Your task to perform on an android device: open app "YouTube Kids" (install if not already installed) Image 0: 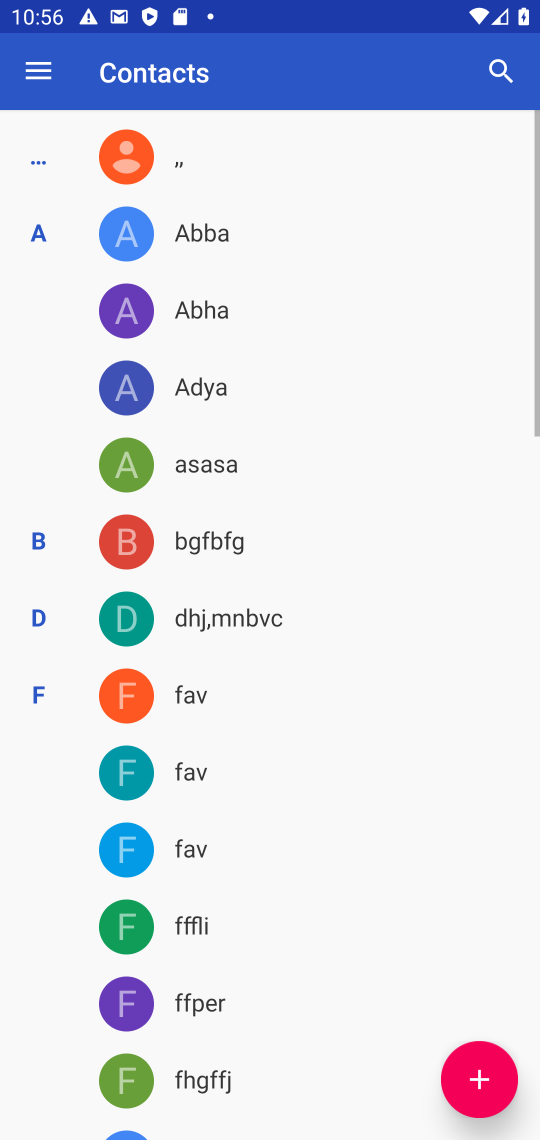
Step 0: press home button
Your task to perform on an android device: open app "YouTube Kids" (install if not already installed) Image 1: 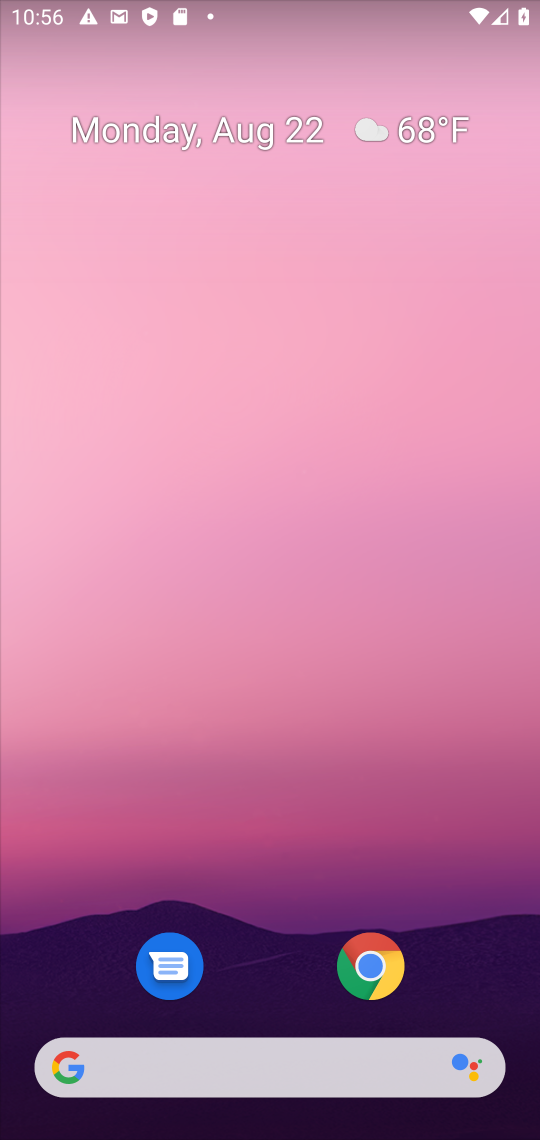
Step 1: drag from (463, 935) to (446, 79)
Your task to perform on an android device: open app "YouTube Kids" (install if not already installed) Image 2: 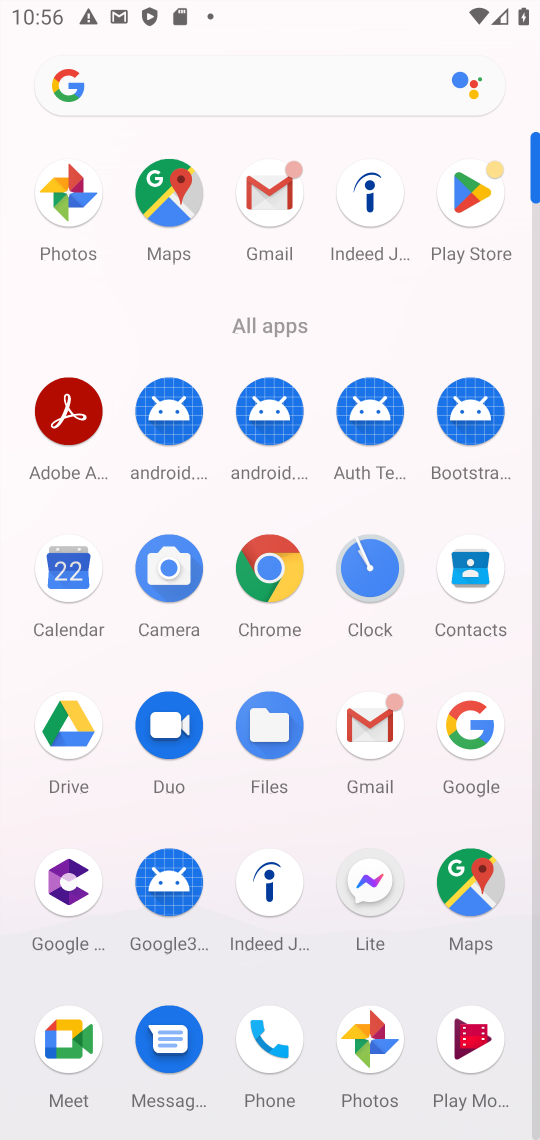
Step 2: click (471, 185)
Your task to perform on an android device: open app "YouTube Kids" (install if not already installed) Image 3: 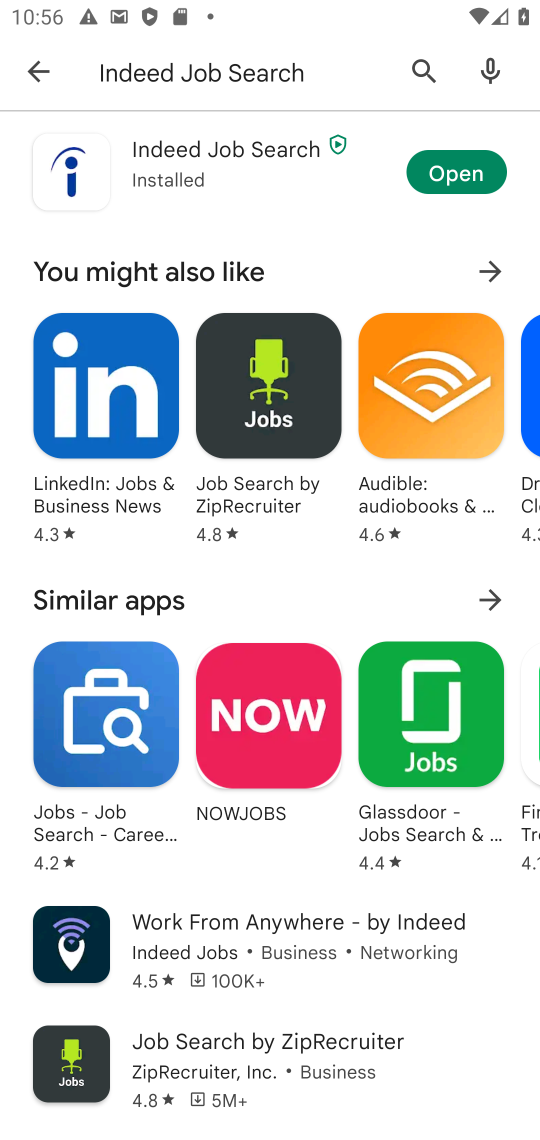
Step 3: press back button
Your task to perform on an android device: open app "YouTube Kids" (install if not already installed) Image 4: 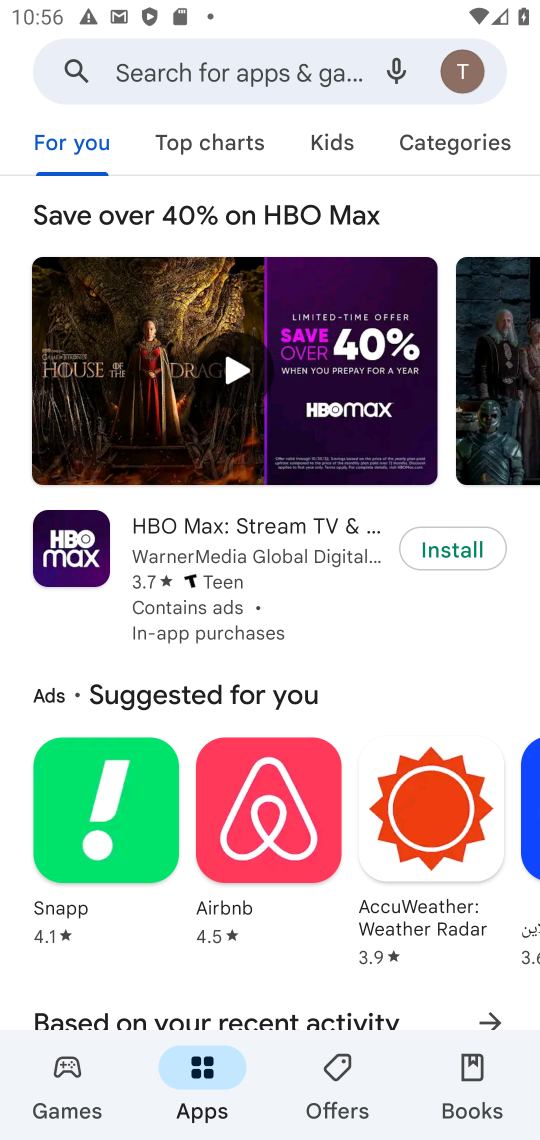
Step 4: click (217, 71)
Your task to perform on an android device: open app "YouTube Kids" (install if not already installed) Image 5: 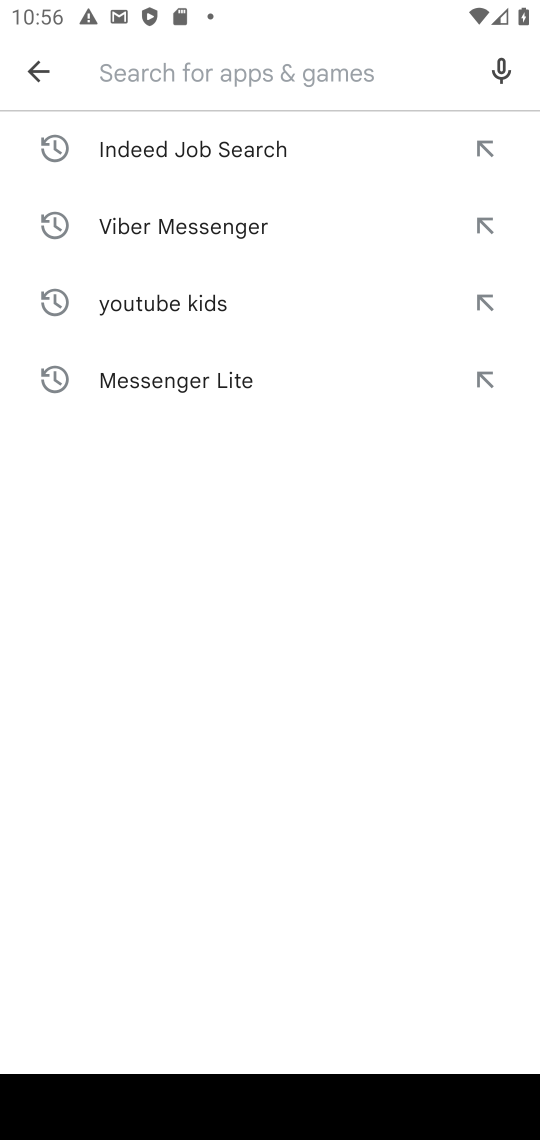
Step 5: type "YouTube Kids"
Your task to perform on an android device: open app "YouTube Kids" (install if not already installed) Image 6: 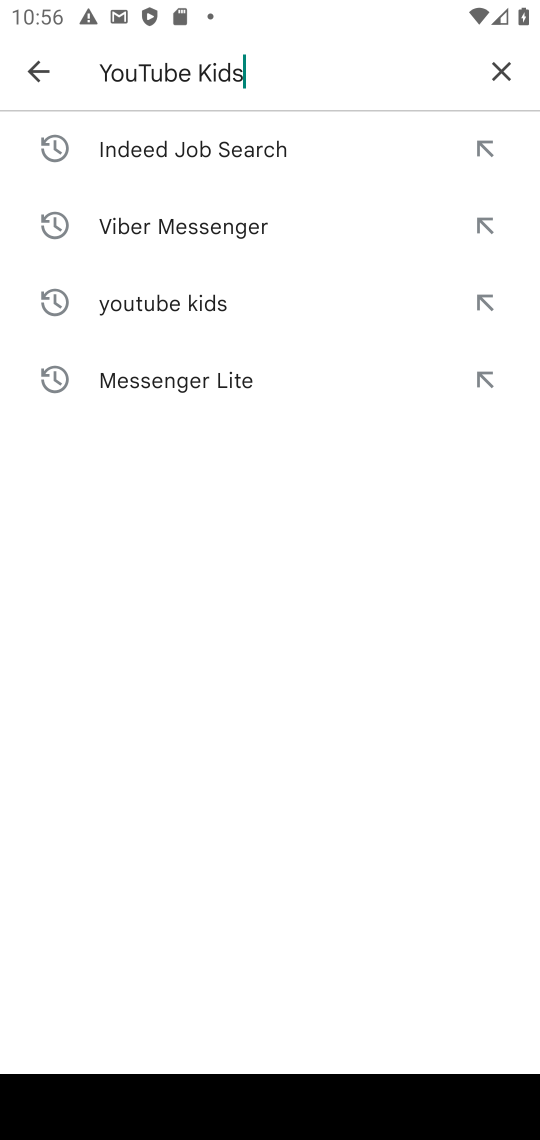
Step 6: press enter
Your task to perform on an android device: open app "YouTube Kids" (install if not already installed) Image 7: 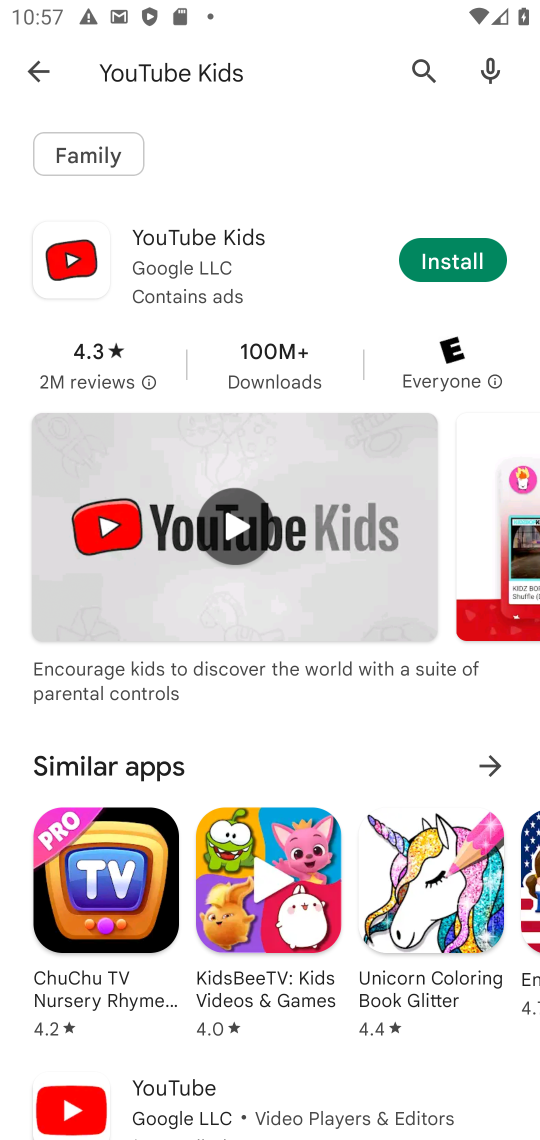
Step 7: click (462, 262)
Your task to perform on an android device: open app "YouTube Kids" (install if not already installed) Image 8: 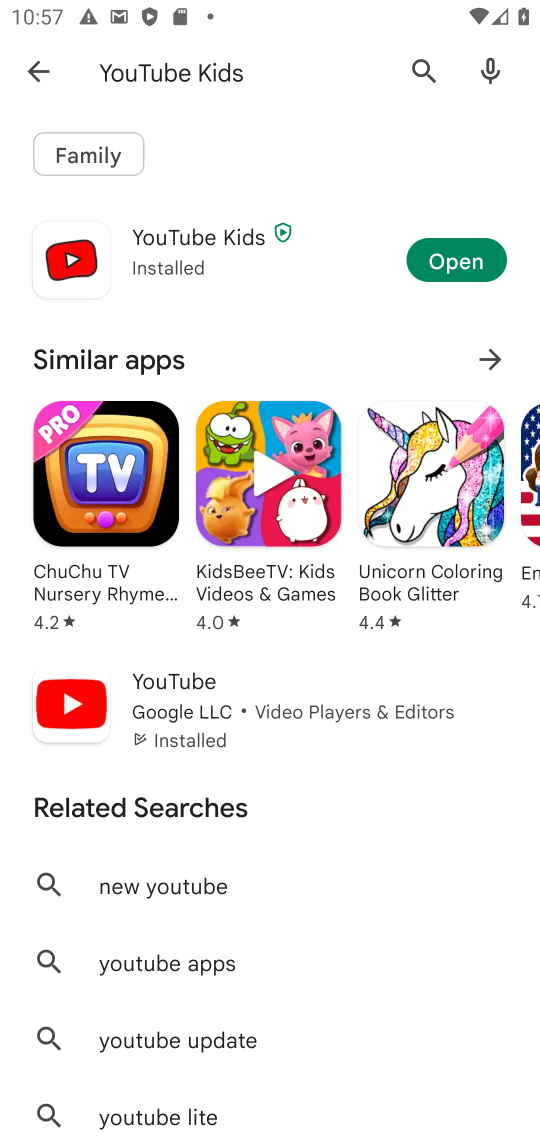
Step 8: click (438, 267)
Your task to perform on an android device: open app "YouTube Kids" (install if not already installed) Image 9: 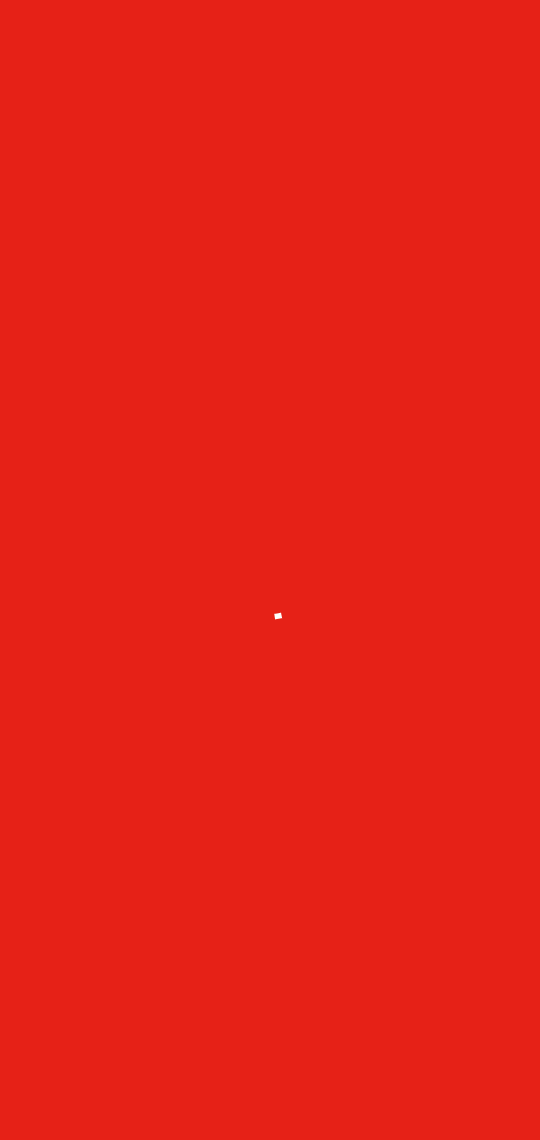
Step 9: task complete